Your task to perform on an android device: Open Maps and search for coffee Image 0: 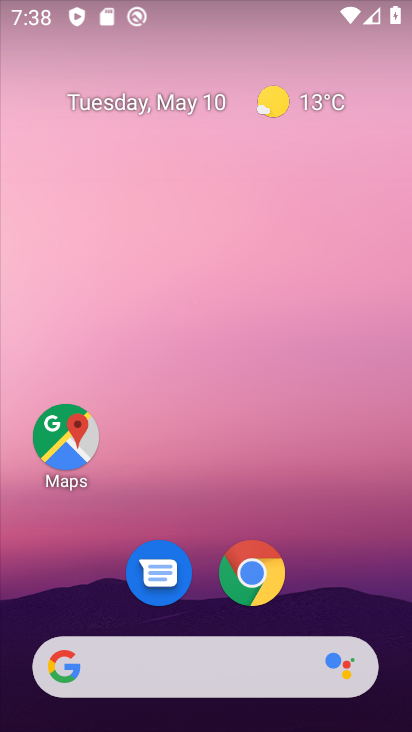
Step 0: click (69, 431)
Your task to perform on an android device: Open Maps and search for coffee Image 1: 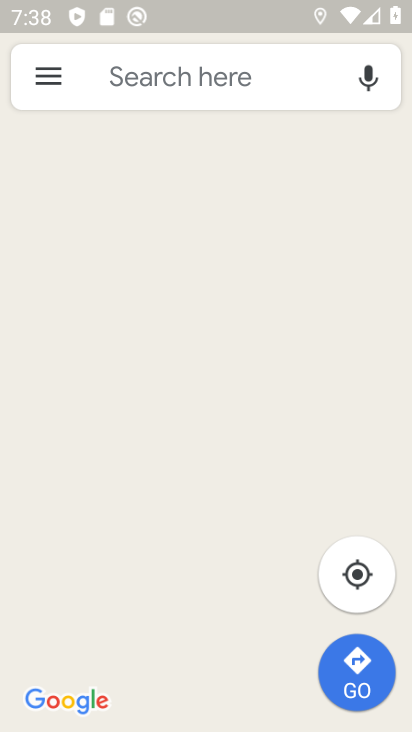
Step 1: click (118, 76)
Your task to perform on an android device: Open Maps and search for coffee Image 2: 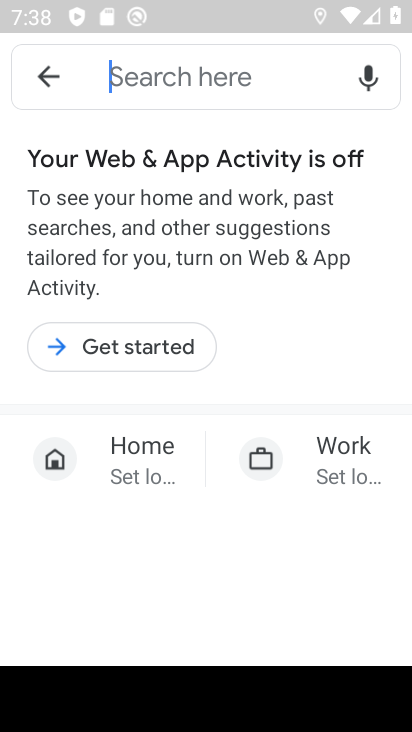
Step 2: type "coffee"
Your task to perform on an android device: Open Maps and search for coffee Image 3: 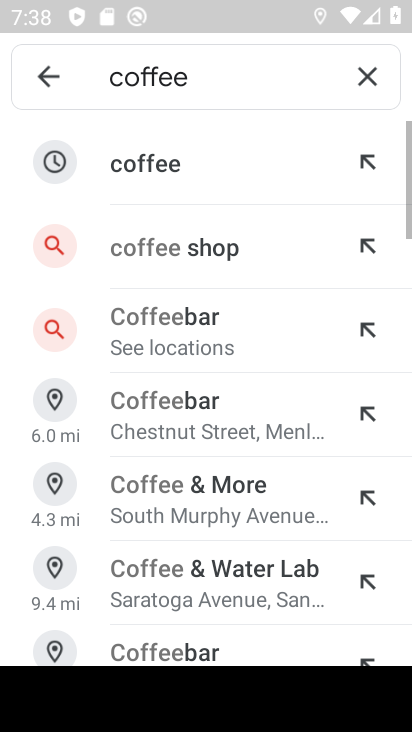
Step 3: click (136, 175)
Your task to perform on an android device: Open Maps and search for coffee Image 4: 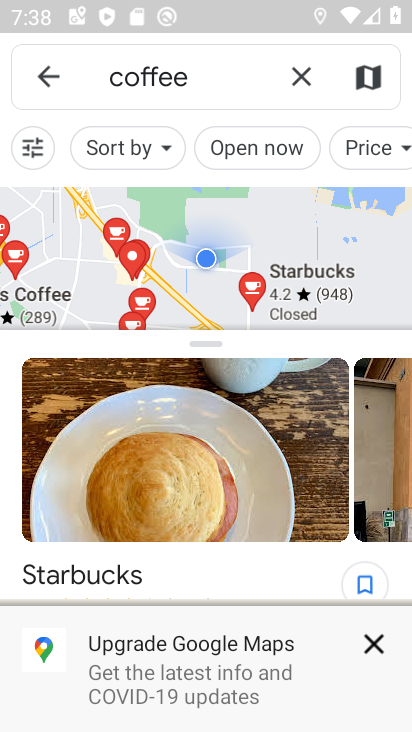
Step 4: click (378, 648)
Your task to perform on an android device: Open Maps and search for coffee Image 5: 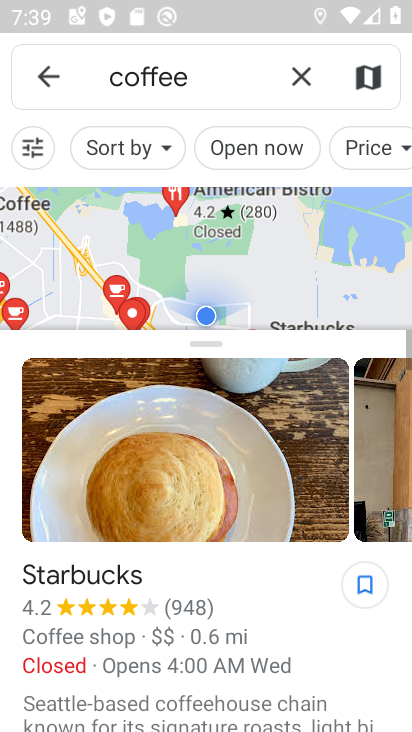
Step 5: task complete